Your task to perform on an android device: What's the weather? Image 0: 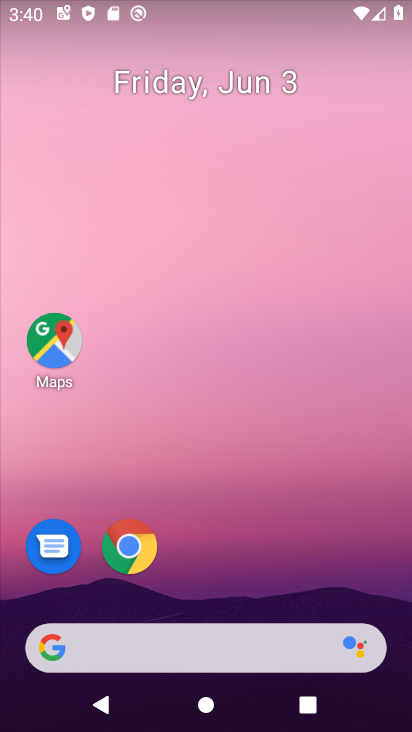
Step 0: click (202, 658)
Your task to perform on an android device: What's the weather? Image 1: 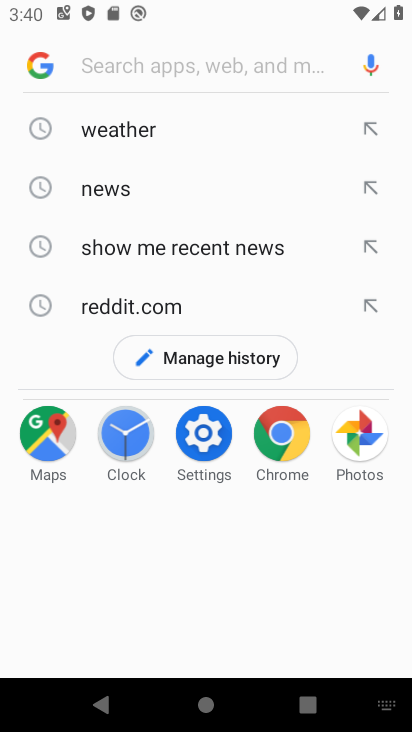
Step 1: click (122, 129)
Your task to perform on an android device: What's the weather? Image 2: 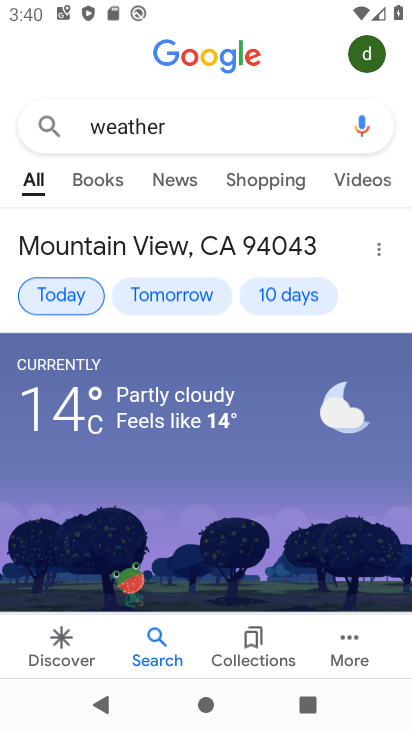
Step 2: click (55, 291)
Your task to perform on an android device: What's the weather? Image 3: 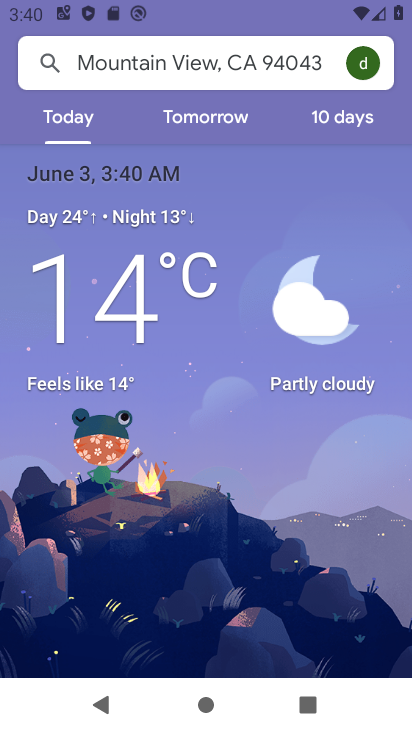
Step 3: task complete